Your task to perform on an android device: What's the weather like in Tokyo? Image 0: 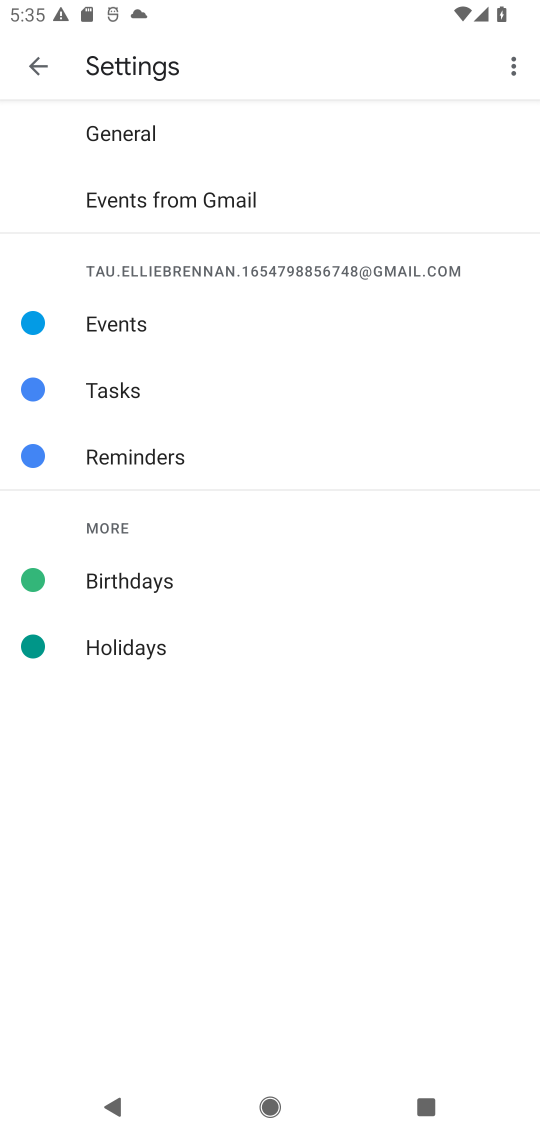
Step 0: press home button
Your task to perform on an android device: What's the weather like in Tokyo? Image 1: 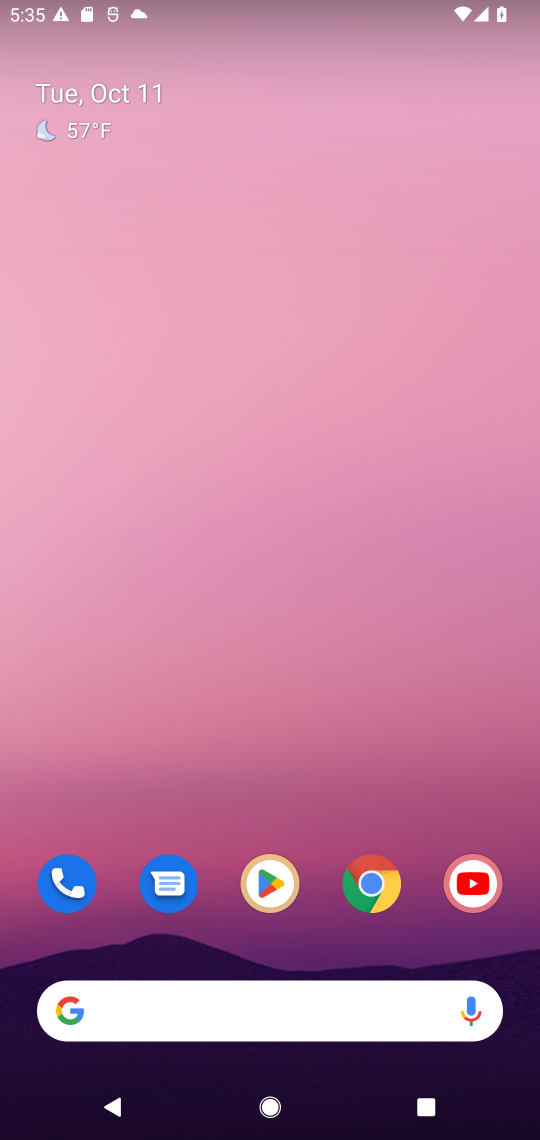
Step 1: drag from (286, 719) to (249, 101)
Your task to perform on an android device: What's the weather like in Tokyo? Image 2: 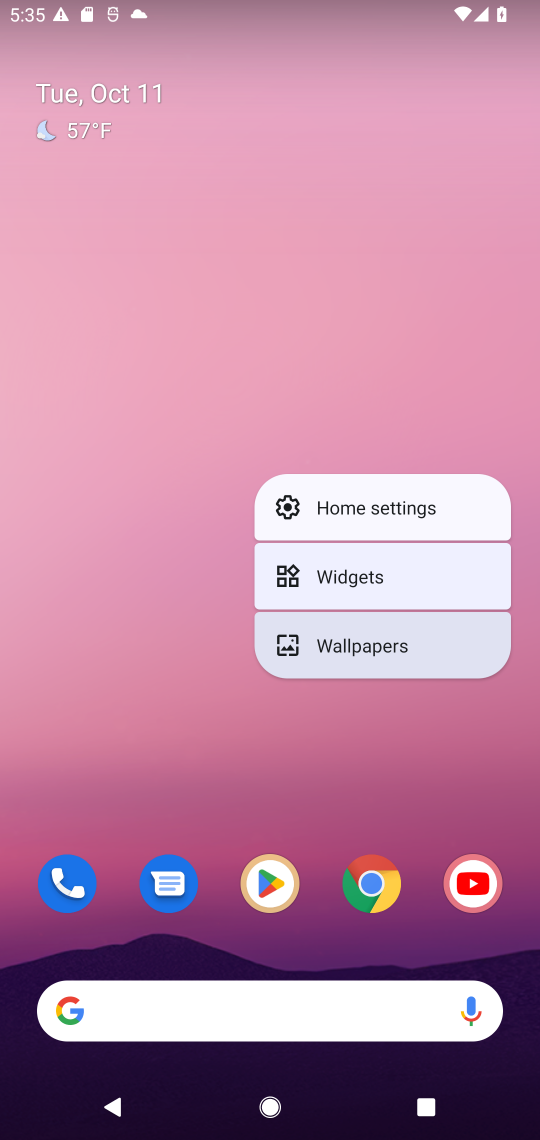
Step 2: click (142, 365)
Your task to perform on an android device: What's the weather like in Tokyo? Image 3: 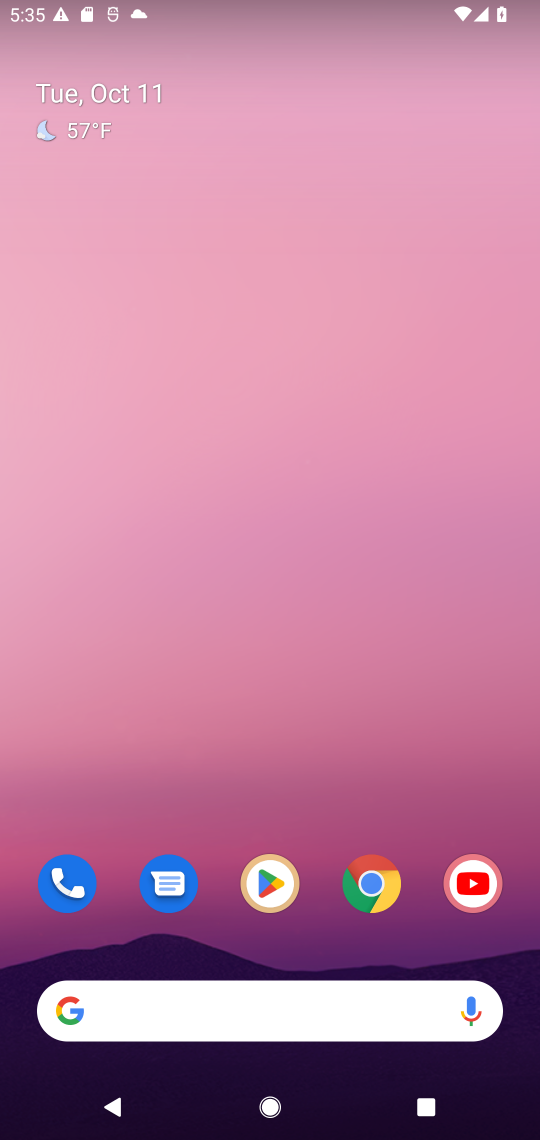
Step 3: drag from (316, 956) to (341, 112)
Your task to perform on an android device: What's the weather like in Tokyo? Image 4: 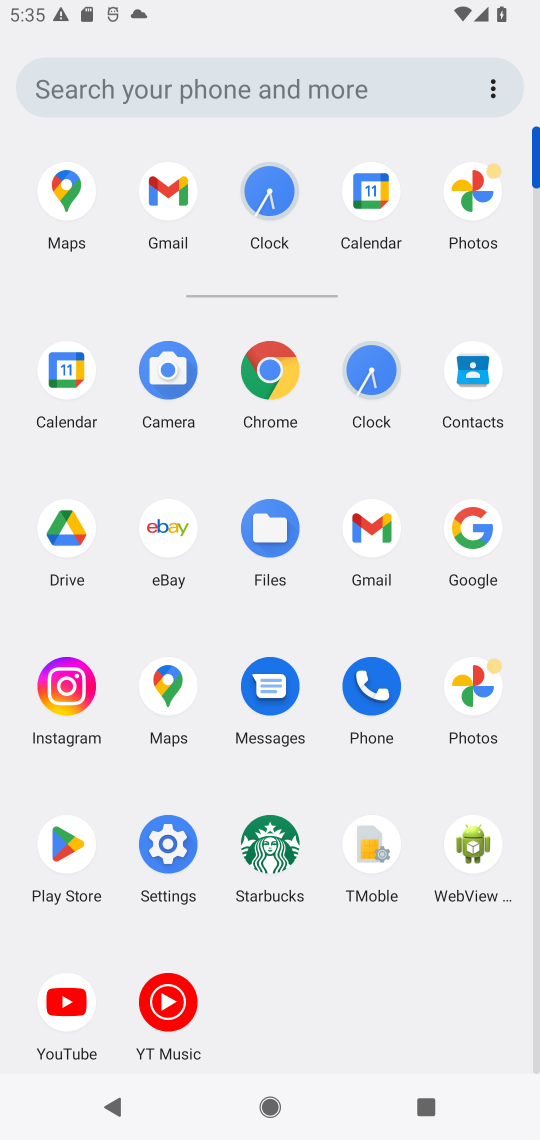
Step 4: click (272, 374)
Your task to perform on an android device: What's the weather like in Tokyo? Image 5: 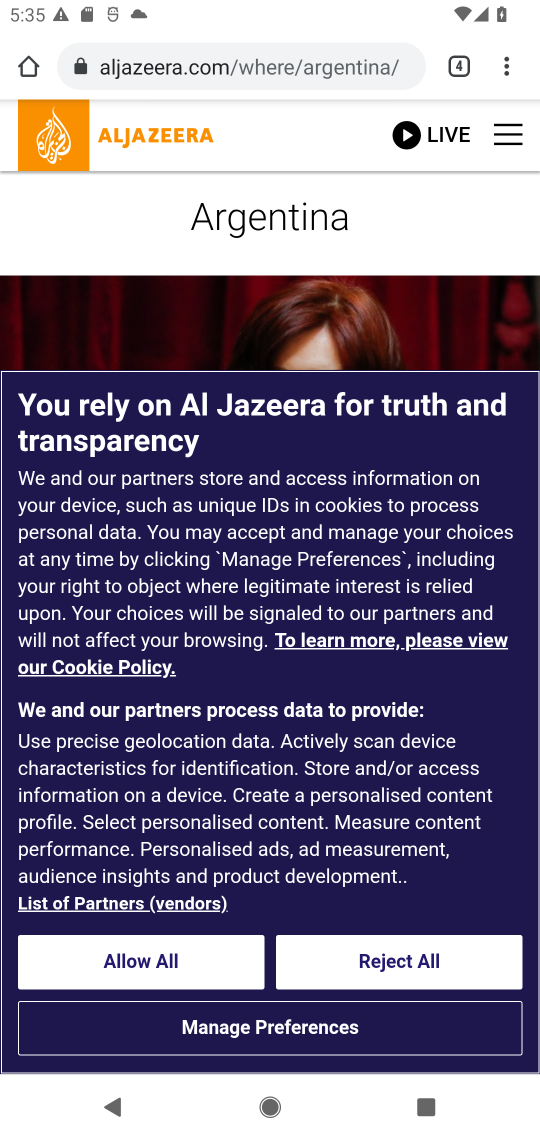
Step 5: click (273, 61)
Your task to perform on an android device: What's the weather like in Tokyo? Image 6: 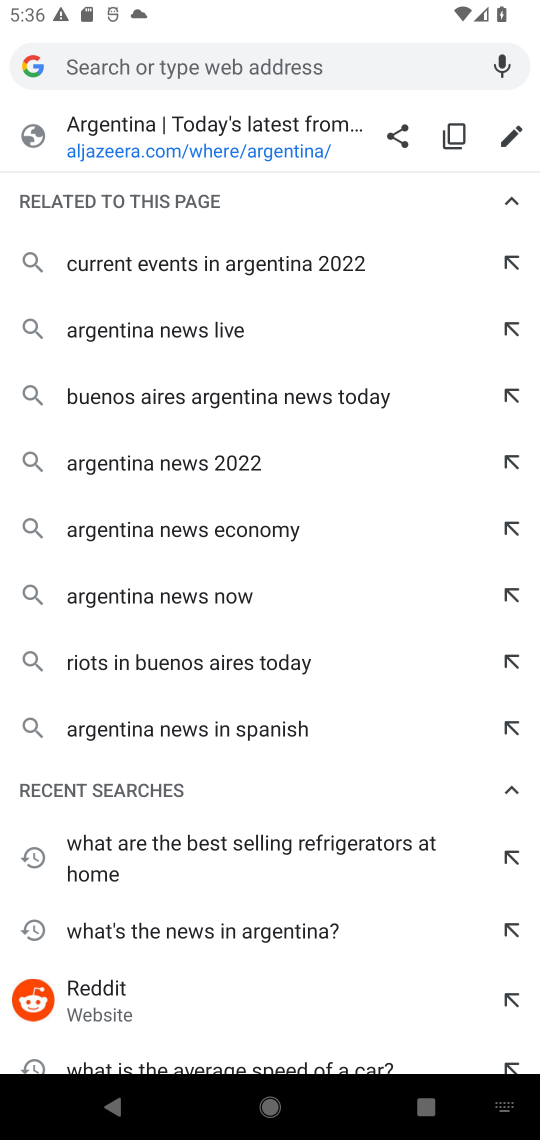
Step 6: type "What's the weather like in Tokyo?"
Your task to perform on an android device: What's the weather like in Tokyo? Image 7: 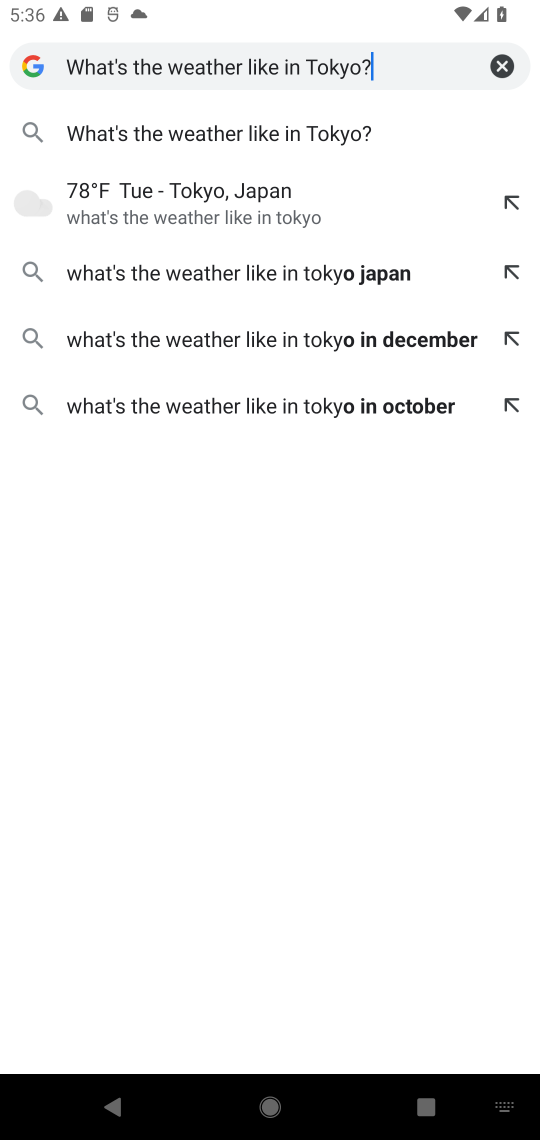
Step 7: press enter
Your task to perform on an android device: What's the weather like in Tokyo? Image 8: 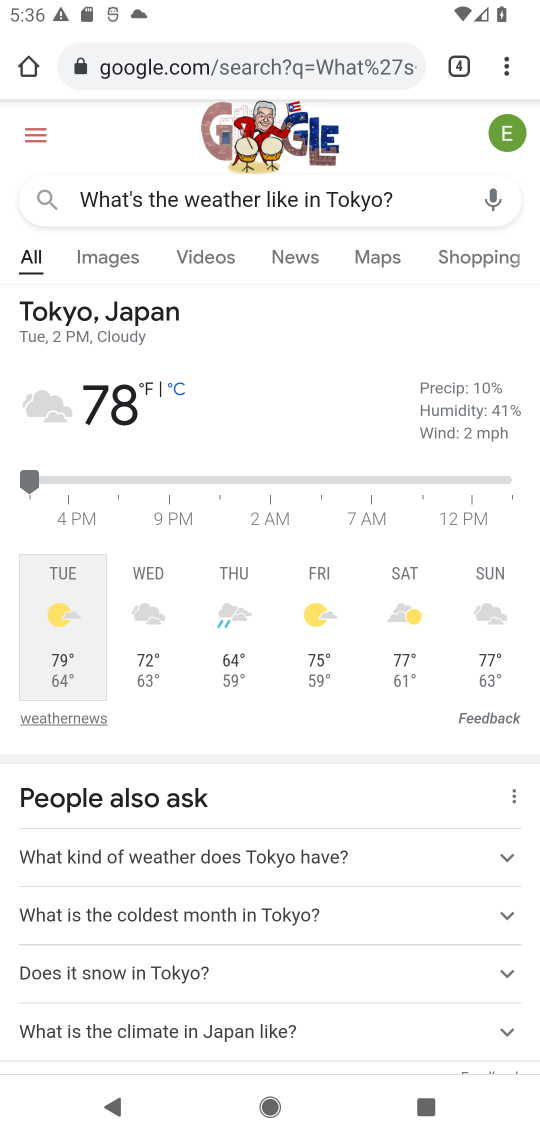
Step 8: task complete